Your task to perform on an android device: Clear the cart on newegg.com. Image 0: 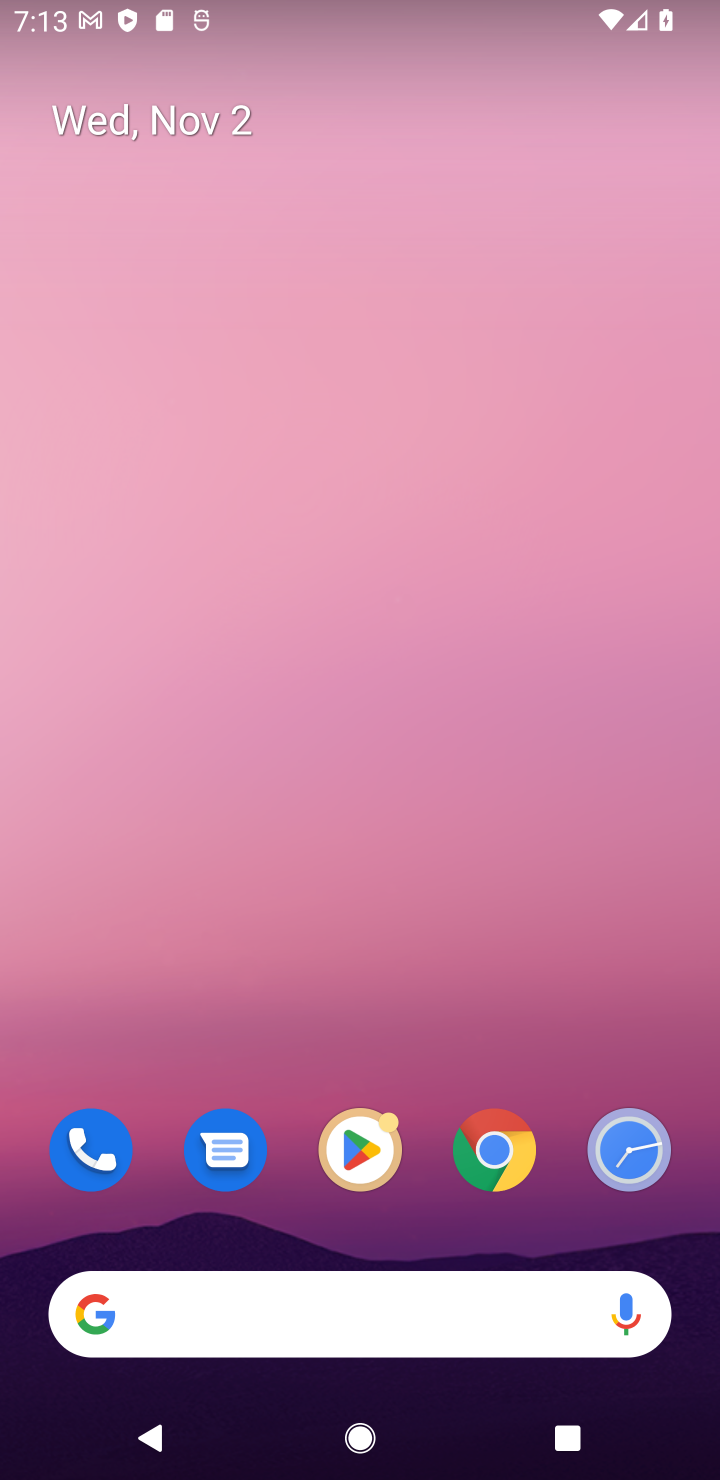
Step 0: click (501, 1175)
Your task to perform on an android device: Clear the cart on newegg.com. Image 1: 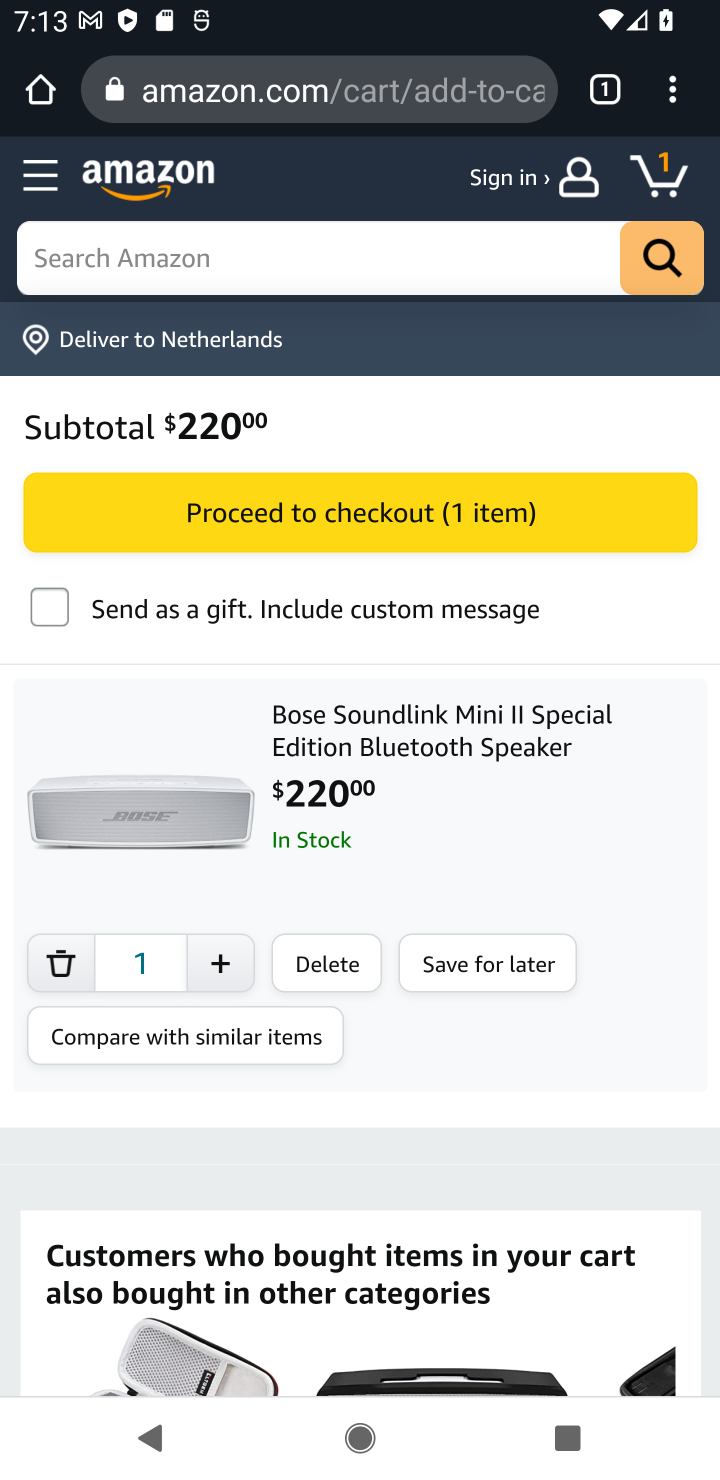
Step 1: click (612, 91)
Your task to perform on an android device: Clear the cart on newegg.com. Image 2: 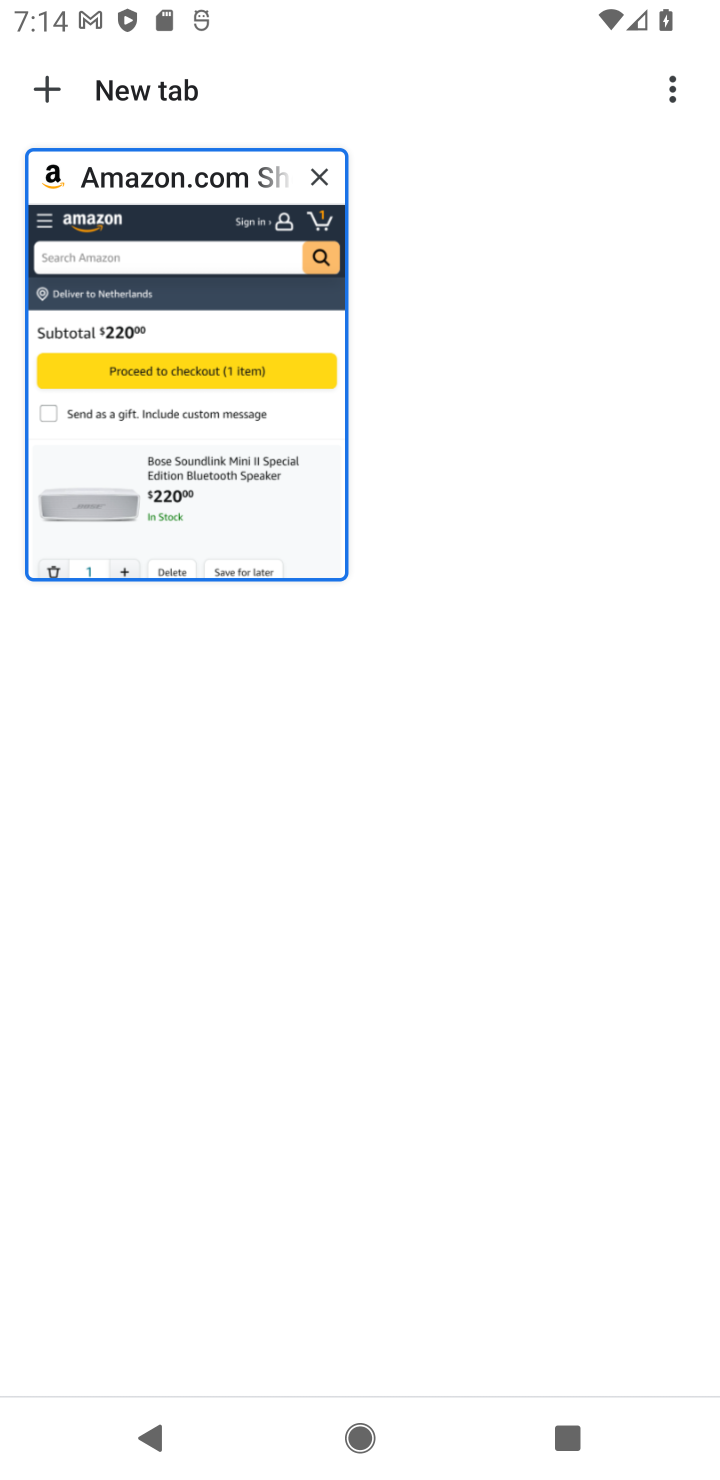
Step 2: click (43, 98)
Your task to perform on an android device: Clear the cart on newegg.com. Image 3: 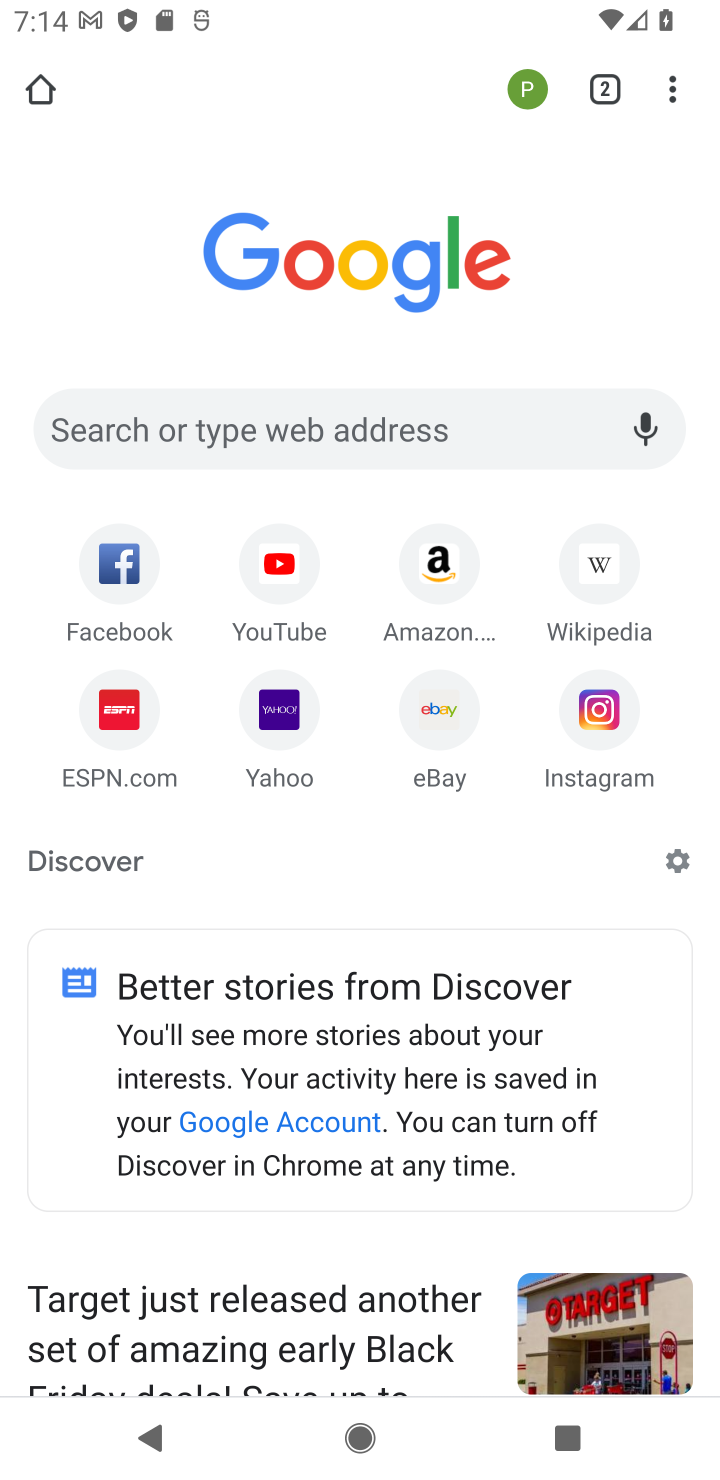
Step 3: click (316, 426)
Your task to perform on an android device: Clear the cart on newegg.com. Image 4: 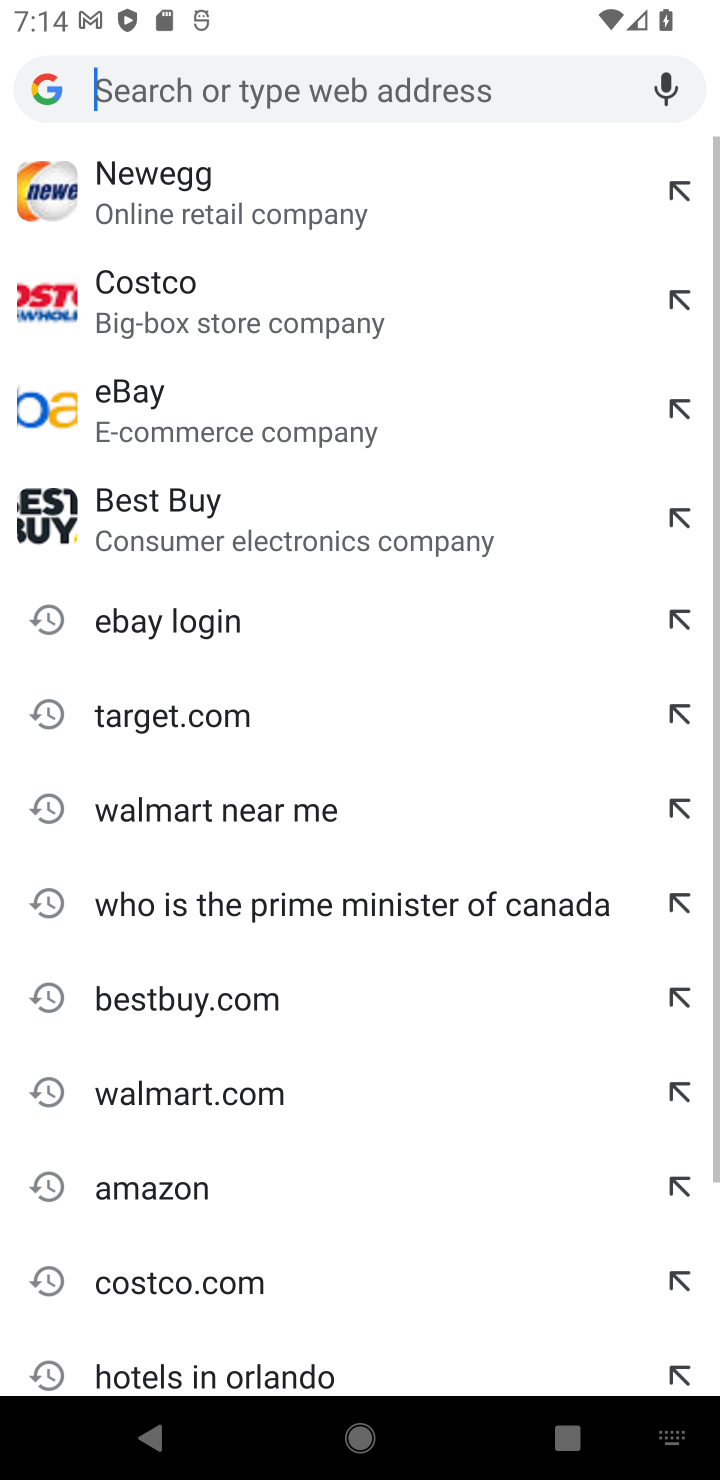
Step 4: type "newegg"
Your task to perform on an android device: Clear the cart on newegg.com. Image 5: 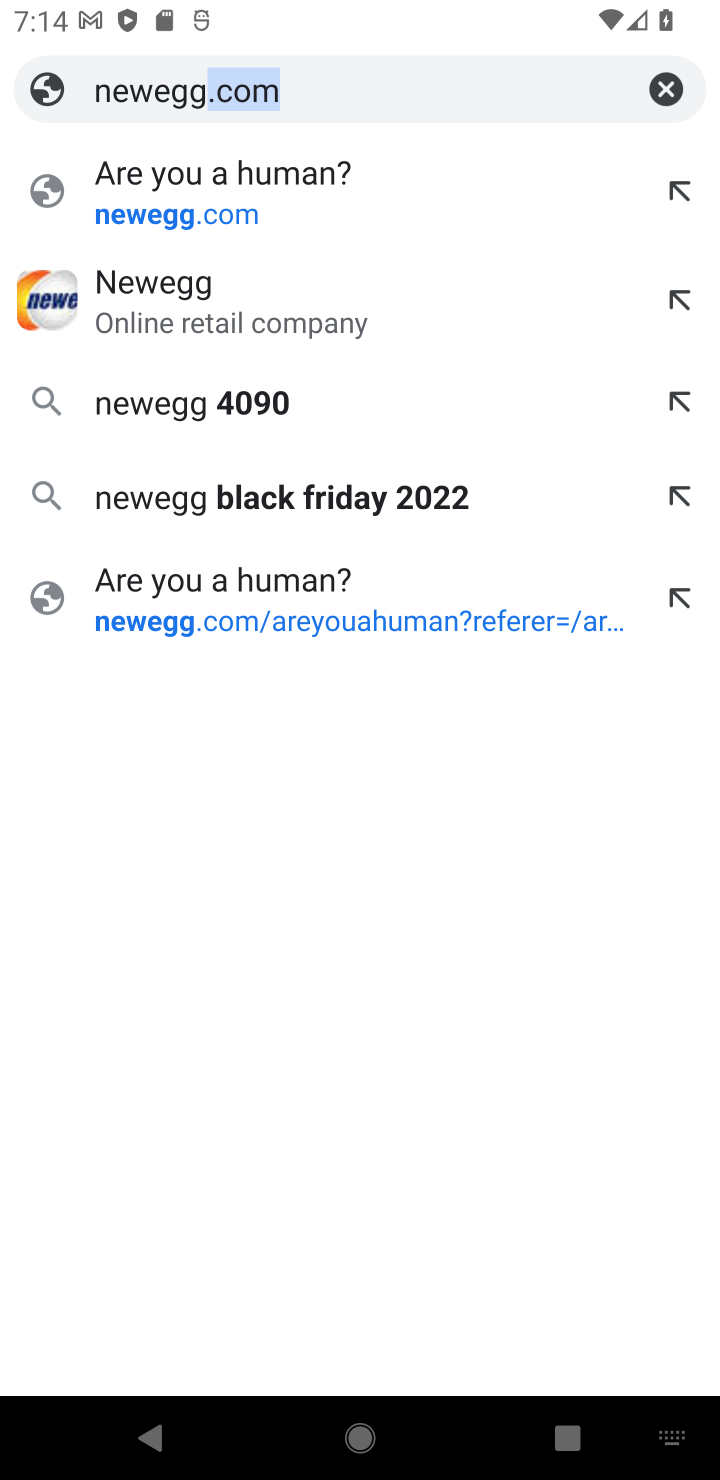
Step 5: click (194, 312)
Your task to perform on an android device: Clear the cart on newegg.com. Image 6: 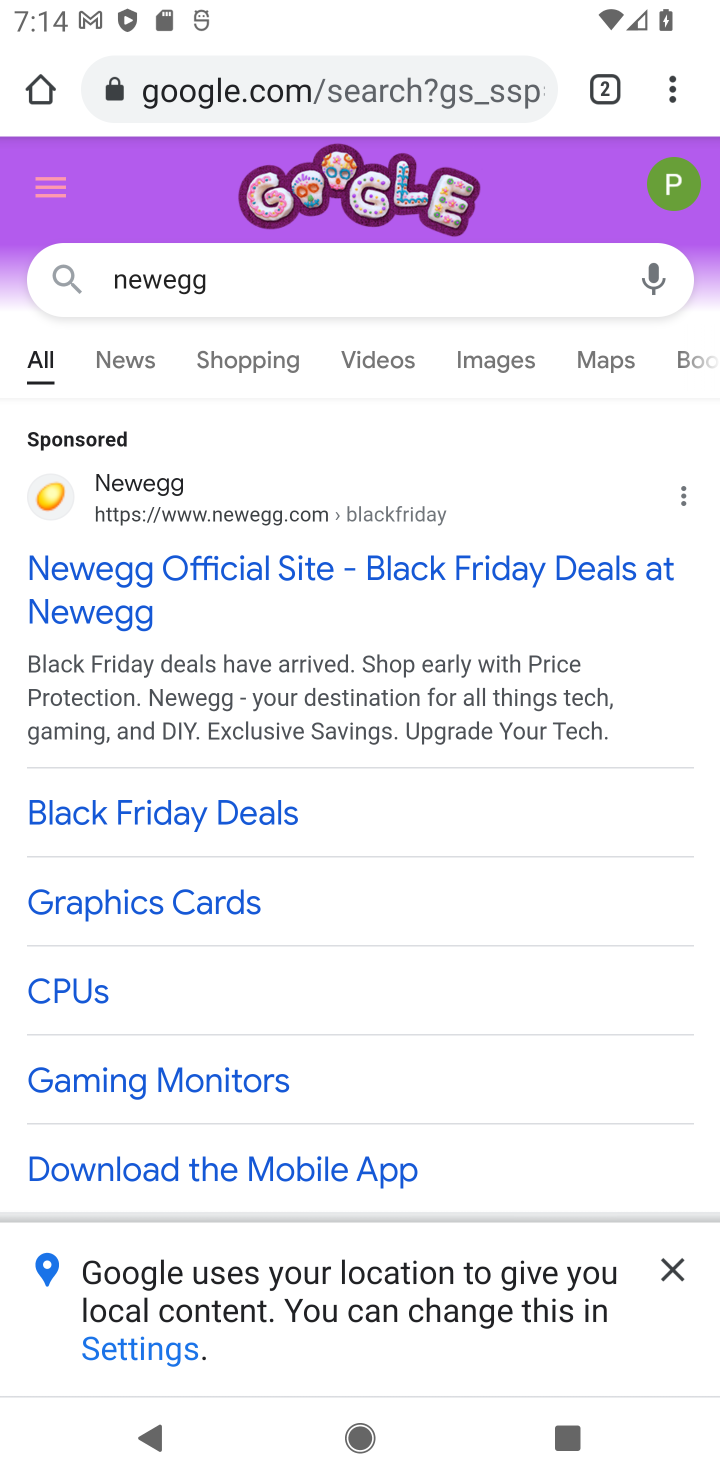
Step 6: click (411, 576)
Your task to perform on an android device: Clear the cart on newegg.com. Image 7: 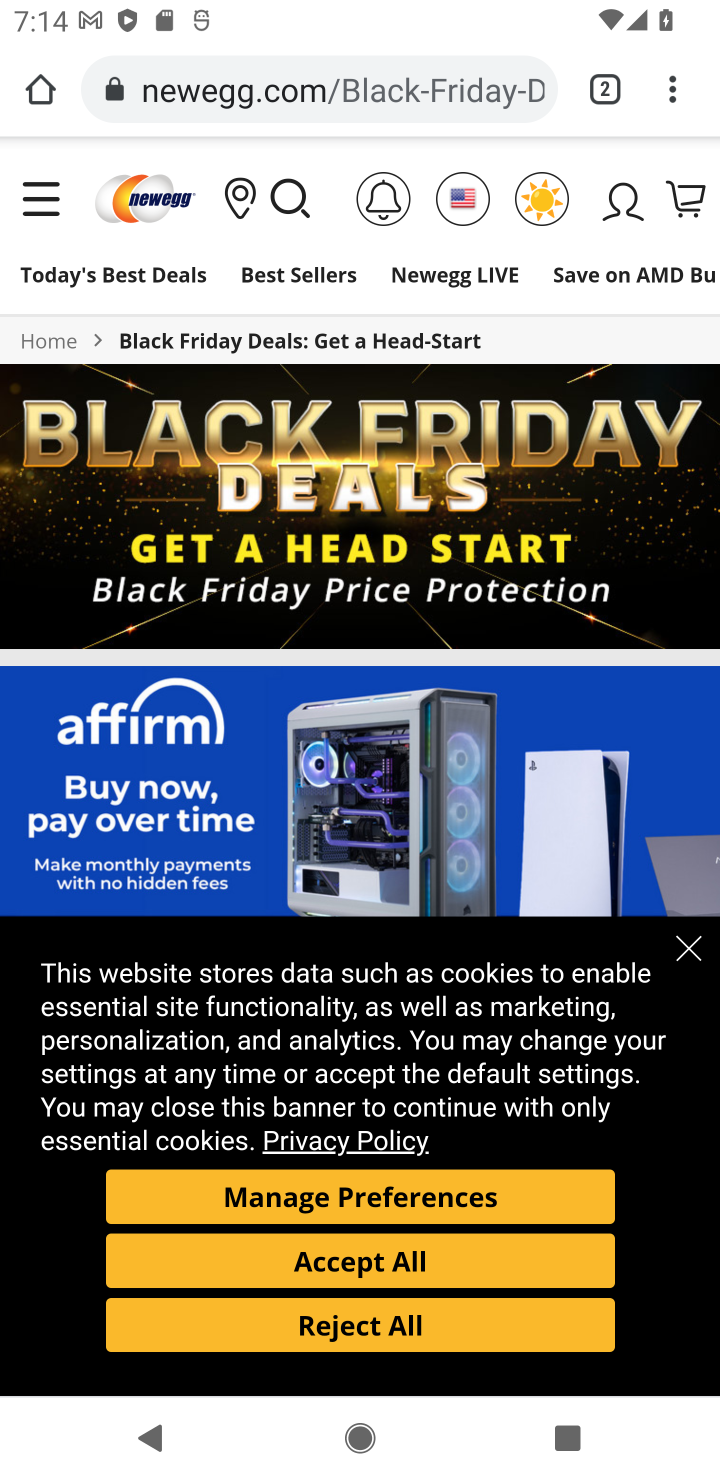
Step 7: task complete